Your task to perform on an android device: uninstall "LiveIn - Share Your Moment" Image 0: 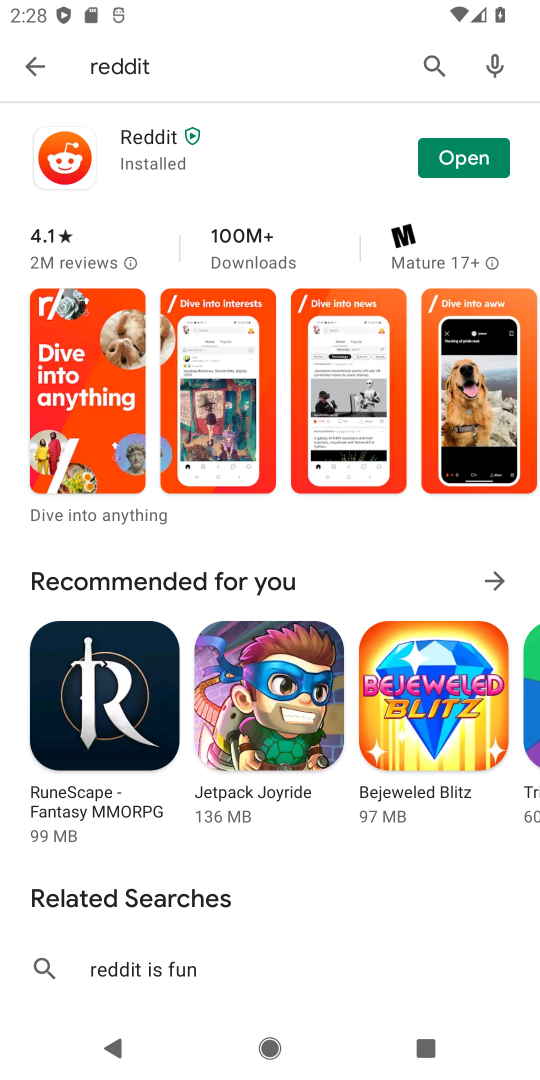
Step 0: press home button
Your task to perform on an android device: uninstall "LiveIn - Share Your Moment" Image 1: 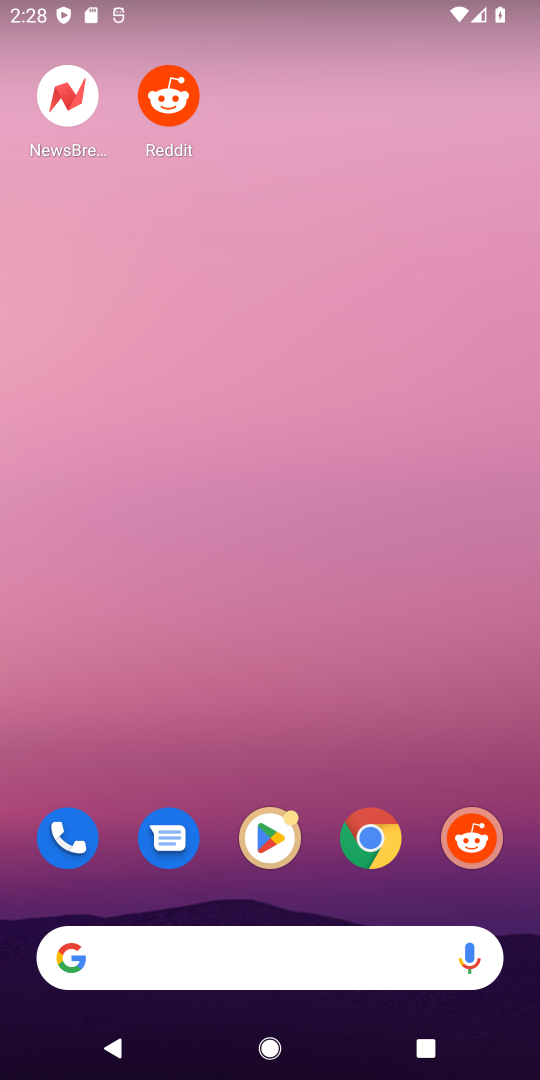
Step 1: drag from (425, 682) to (436, 121)
Your task to perform on an android device: uninstall "LiveIn - Share Your Moment" Image 2: 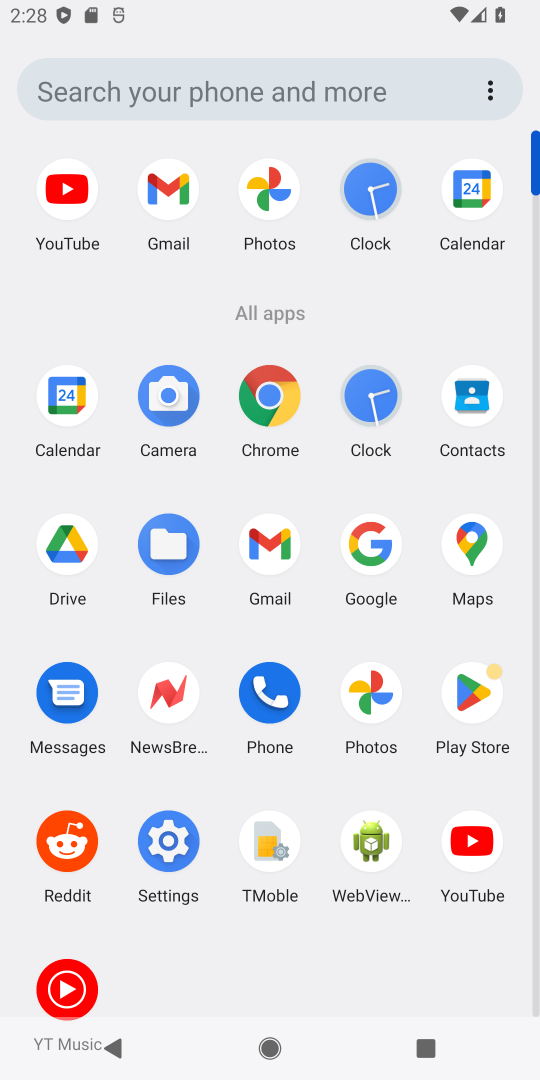
Step 2: click (459, 694)
Your task to perform on an android device: uninstall "LiveIn - Share Your Moment" Image 3: 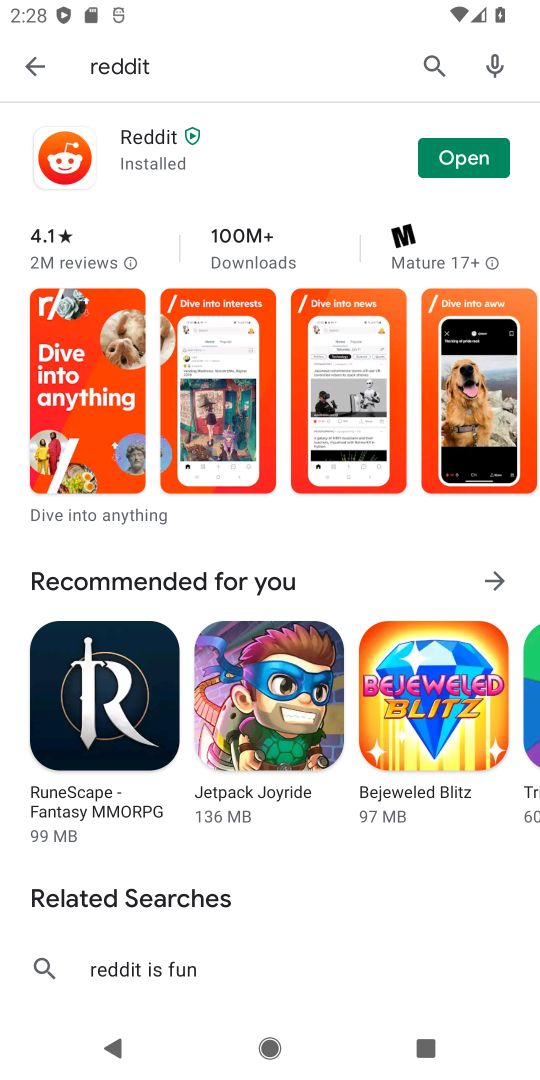
Step 3: press back button
Your task to perform on an android device: uninstall "LiveIn - Share Your Moment" Image 4: 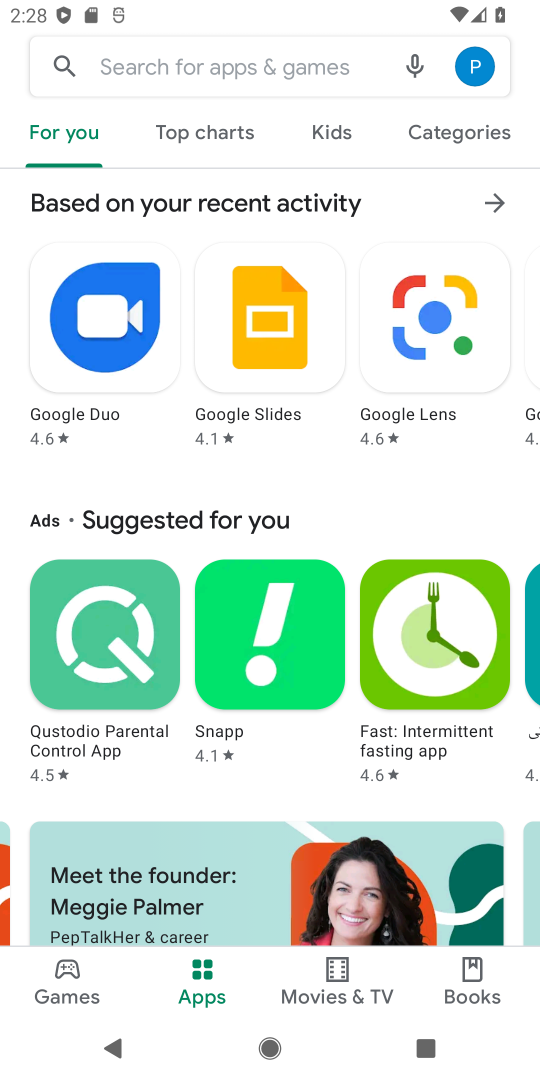
Step 4: click (280, 69)
Your task to perform on an android device: uninstall "LiveIn - Share Your Moment" Image 5: 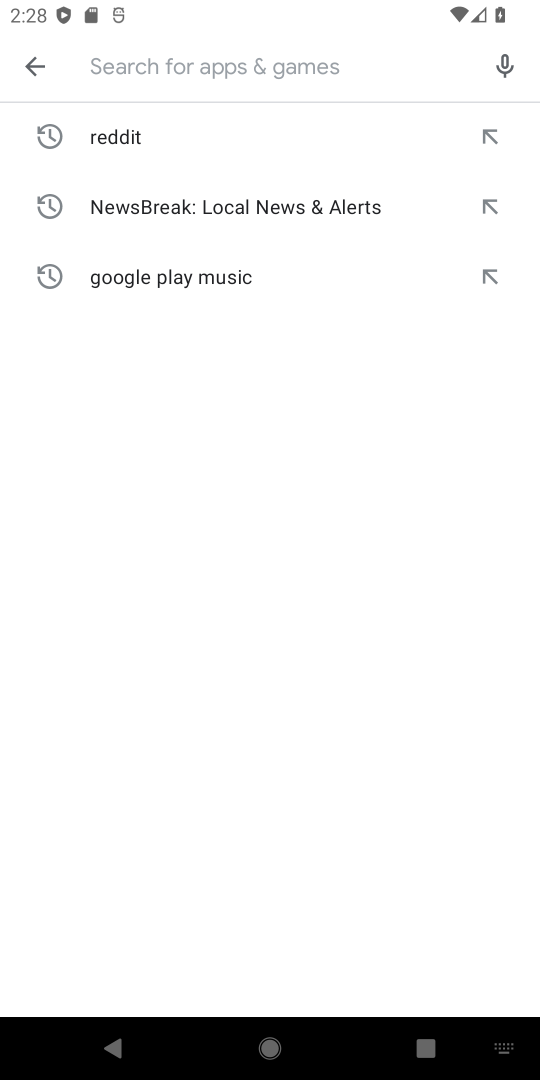
Step 5: type "LiveIn - Share Your Moment"
Your task to perform on an android device: uninstall "LiveIn - Share Your Moment" Image 6: 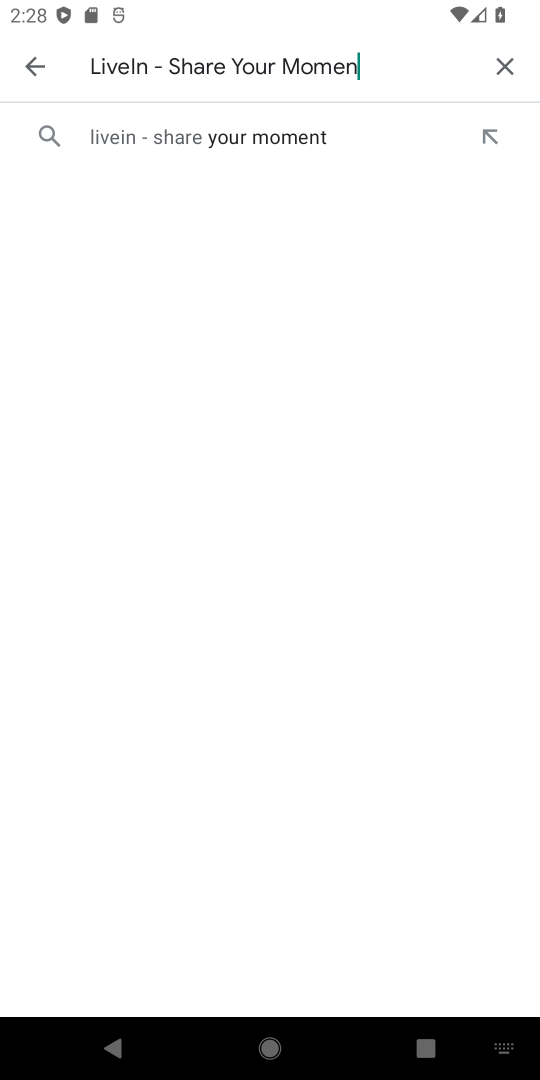
Step 6: press enter
Your task to perform on an android device: uninstall "LiveIn - Share Your Moment" Image 7: 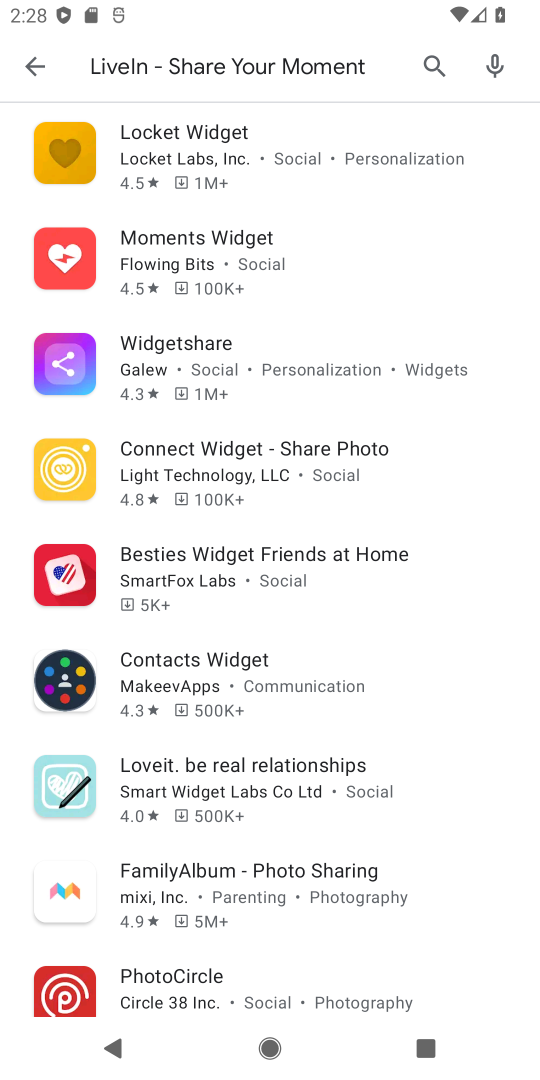
Step 7: task complete